Your task to perform on an android device: check data usage Image 0: 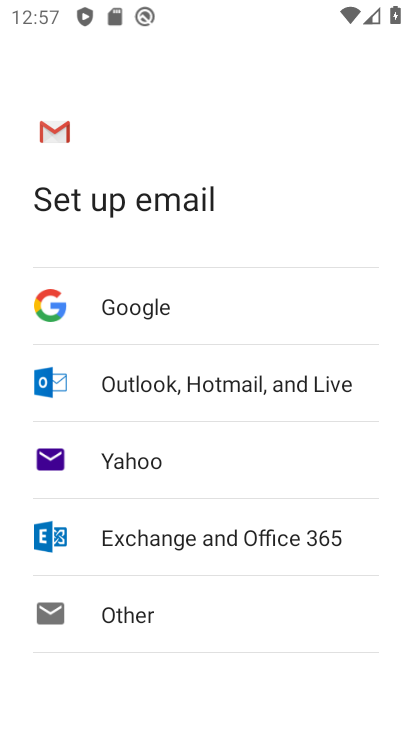
Step 0: press home button
Your task to perform on an android device: check data usage Image 1: 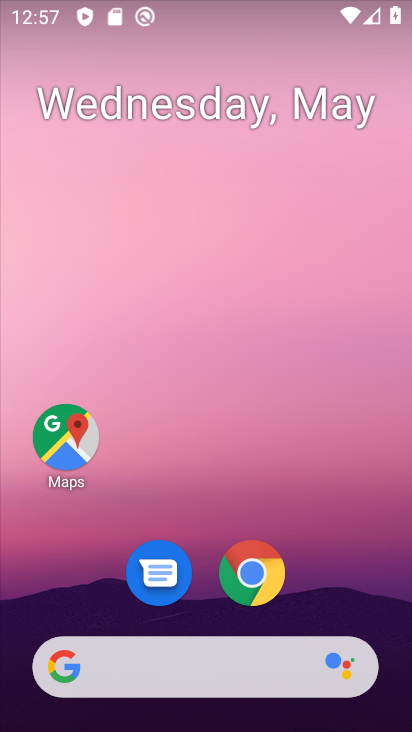
Step 1: drag from (59, 621) to (181, 128)
Your task to perform on an android device: check data usage Image 2: 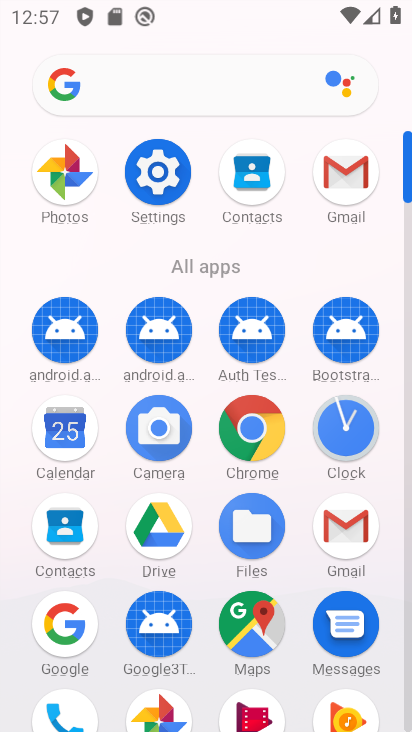
Step 2: drag from (150, 621) to (213, 342)
Your task to perform on an android device: check data usage Image 3: 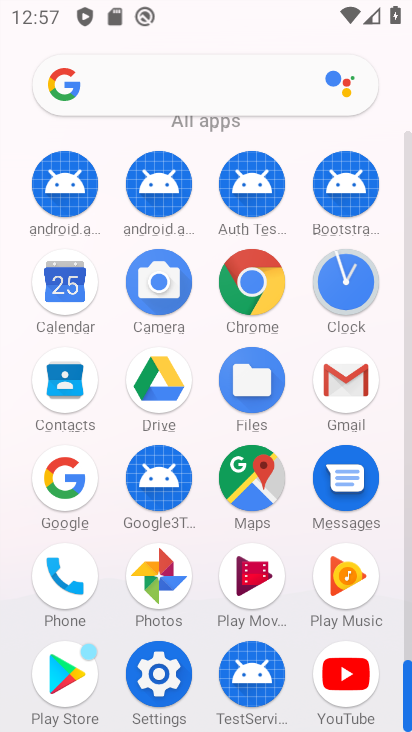
Step 3: click (153, 686)
Your task to perform on an android device: check data usage Image 4: 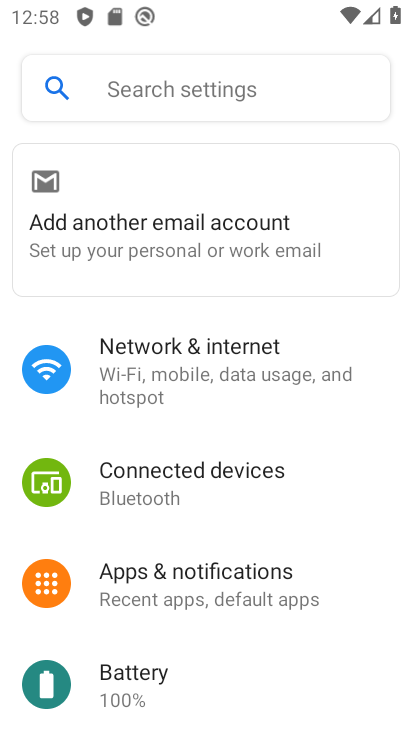
Step 4: click (274, 402)
Your task to perform on an android device: check data usage Image 5: 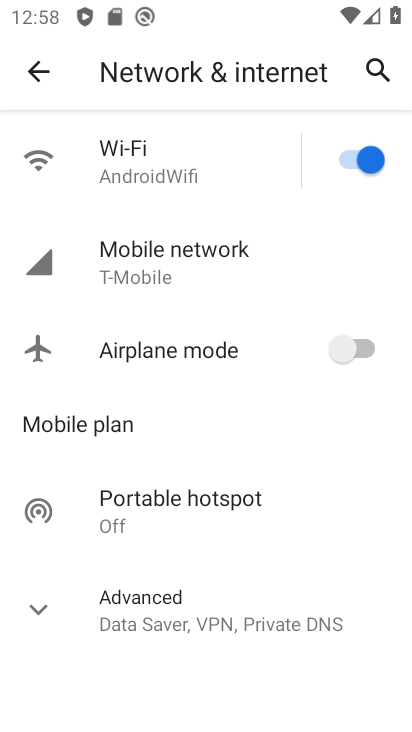
Step 5: click (225, 269)
Your task to perform on an android device: check data usage Image 6: 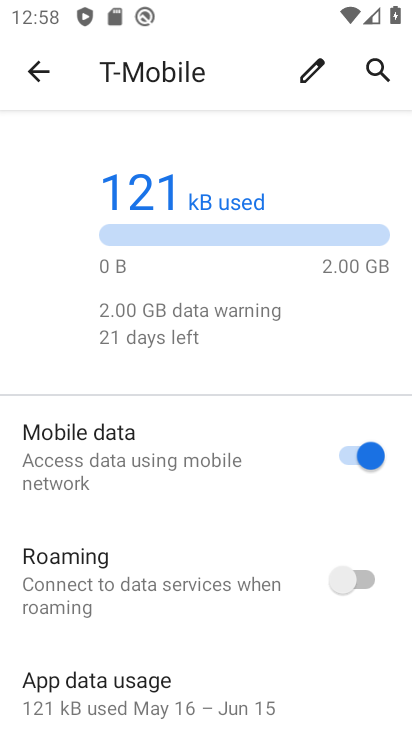
Step 6: click (168, 711)
Your task to perform on an android device: check data usage Image 7: 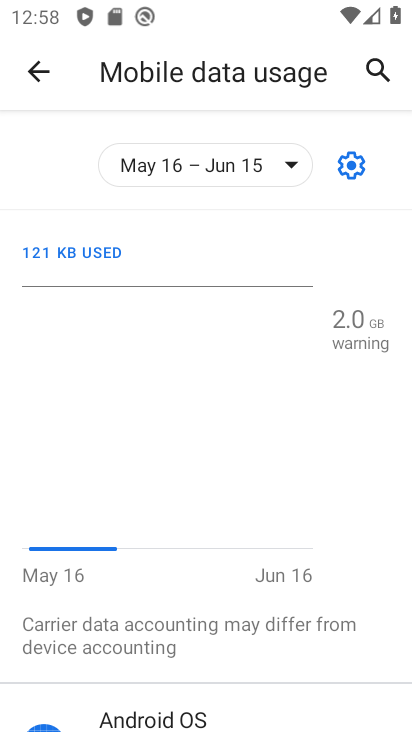
Step 7: task complete